Your task to perform on an android device: open sync settings in chrome Image 0: 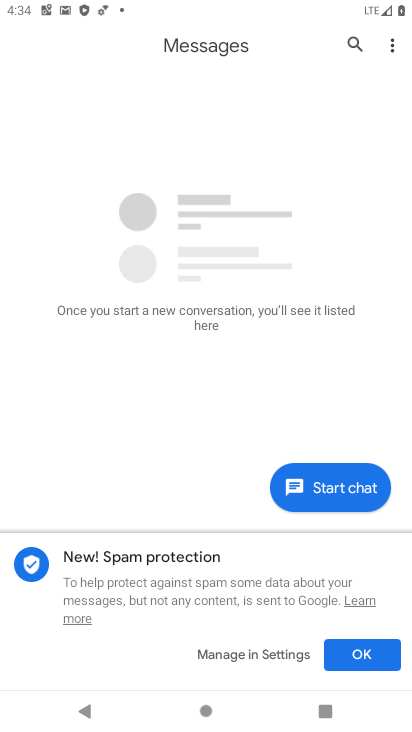
Step 0: press home button
Your task to perform on an android device: open sync settings in chrome Image 1: 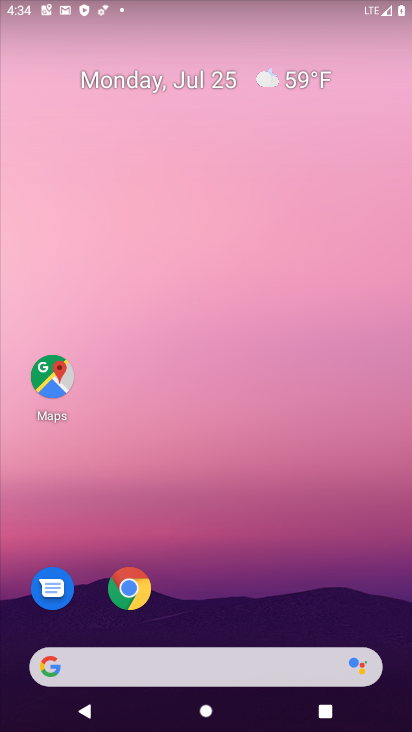
Step 1: drag from (385, 239) to (391, 196)
Your task to perform on an android device: open sync settings in chrome Image 2: 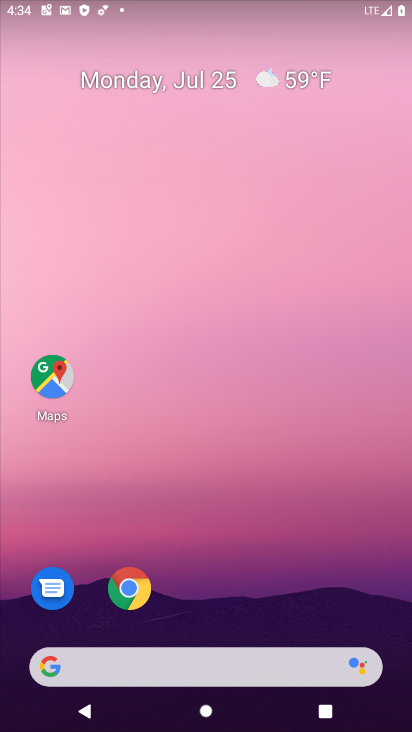
Step 2: drag from (271, 480) to (303, 94)
Your task to perform on an android device: open sync settings in chrome Image 3: 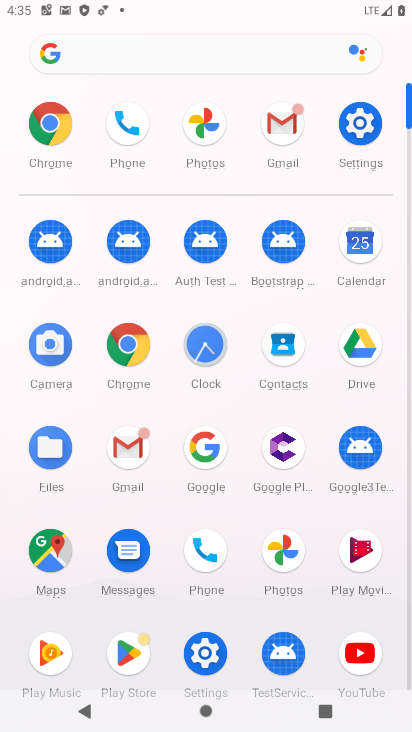
Step 3: click (135, 339)
Your task to perform on an android device: open sync settings in chrome Image 4: 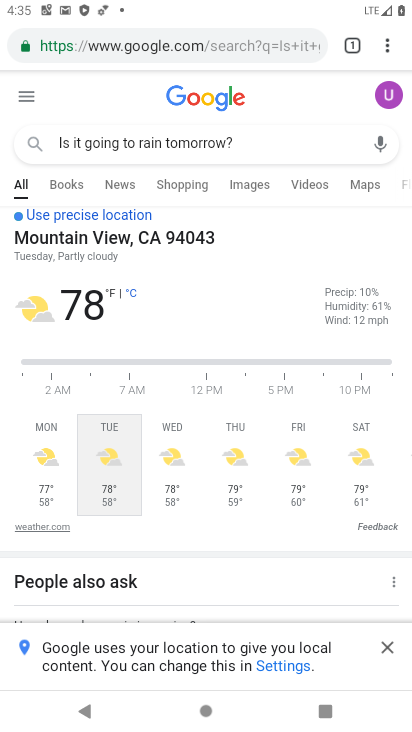
Step 4: drag from (388, 44) to (222, 512)
Your task to perform on an android device: open sync settings in chrome Image 5: 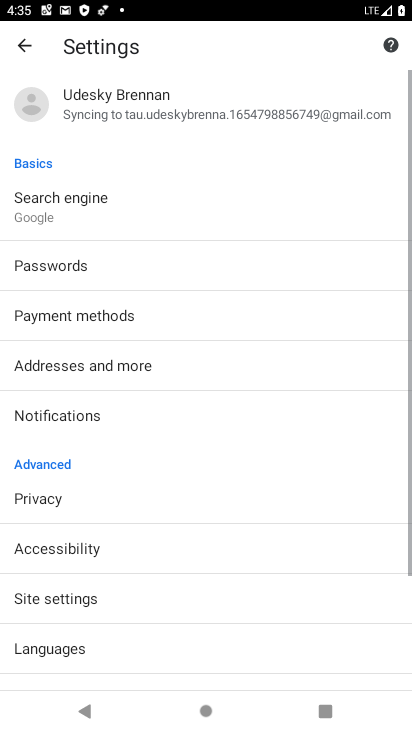
Step 5: click (55, 101)
Your task to perform on an android device: open sync settings in chrome Image 6: 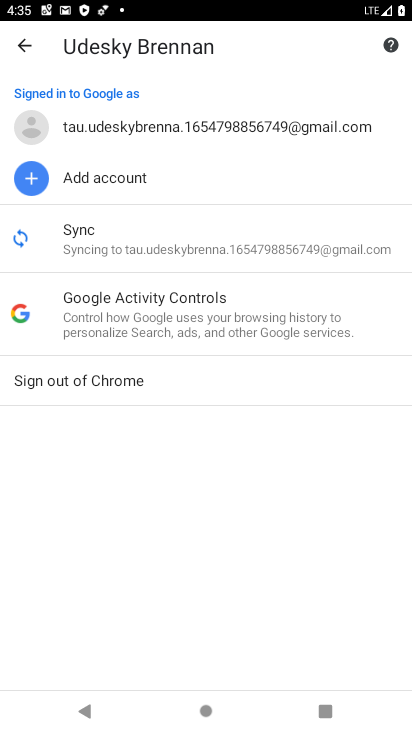
Step 6: click (94, 237)
Your task to perform on an android device: open sync settings in chrome Image 7: 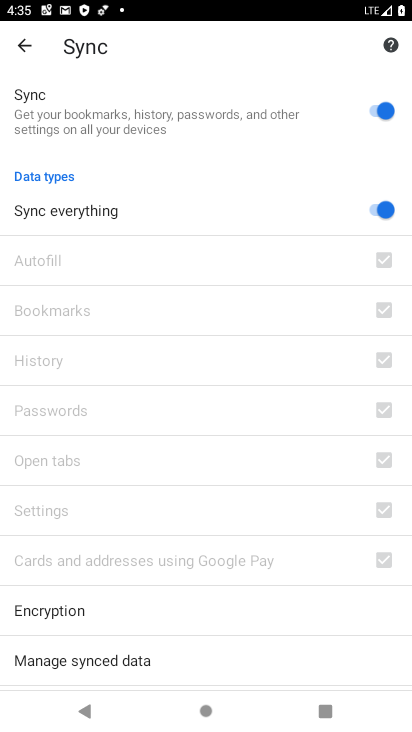
Step 7: task complete